Your task to perform on an android device: Check the news Image 0: 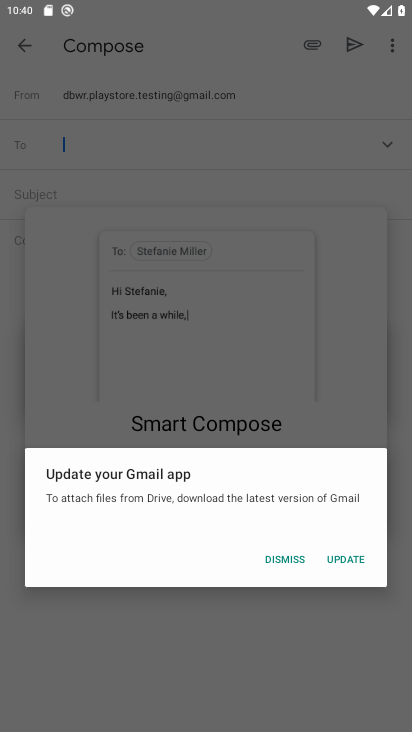
Step 0: press home button
Your task to perform on an android device: Check the news Image 1: 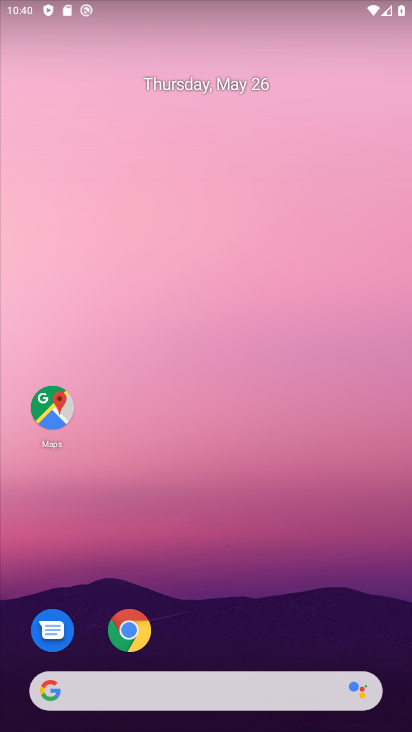
Step 1: drag from (223, 606) to (252, 135)
Your task to perform on an android device: Check the news Image 2: 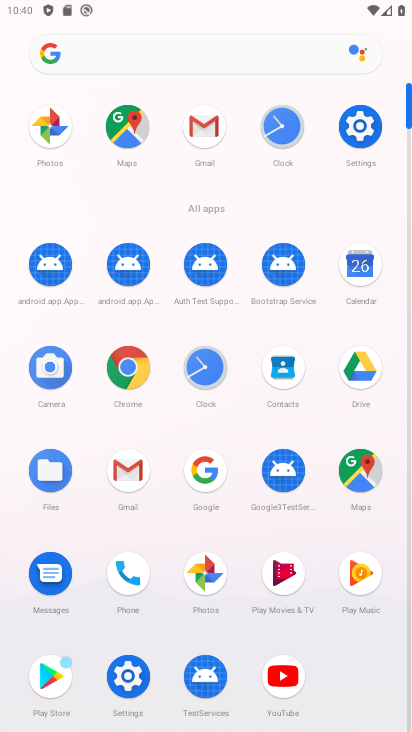
Step 2: click (202, 468)
Your task to perform on an android device: Check the news Image 3: 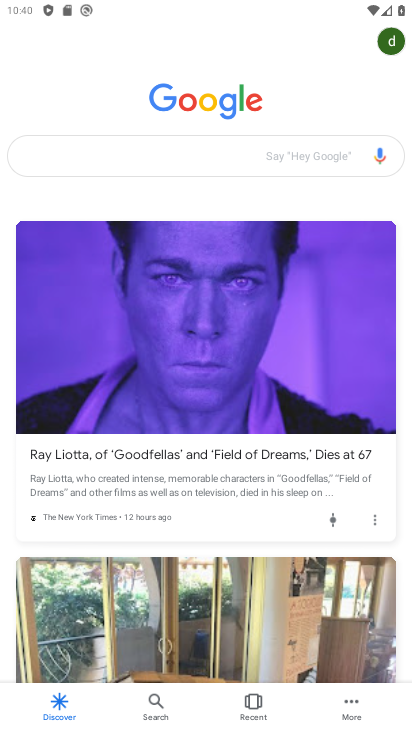
Step 3: click (182, 150)
Your task to perform on an android device: Check the news Image 4: 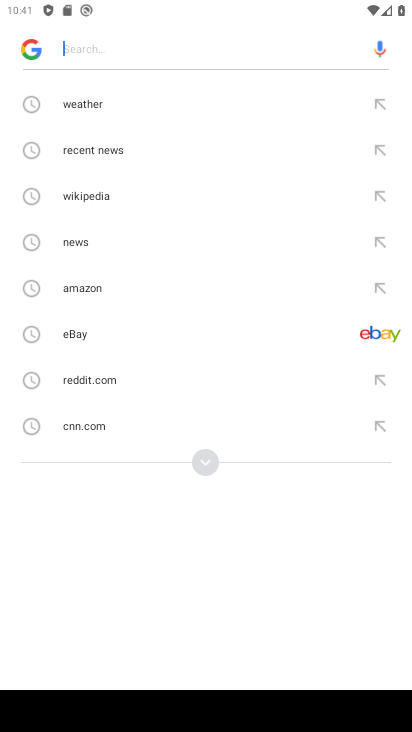
Step 4: click (76, 234)
Your task to perform on an android device: Check the news Image 5: 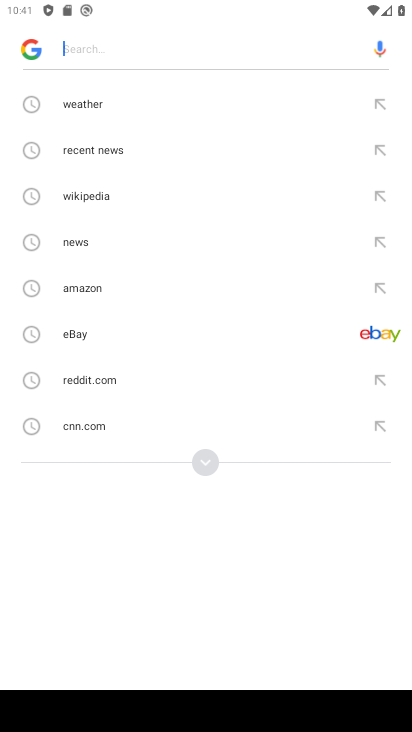
Step 5: click (76, 234)
Your task to perform on an android device: Check the news Image 6: 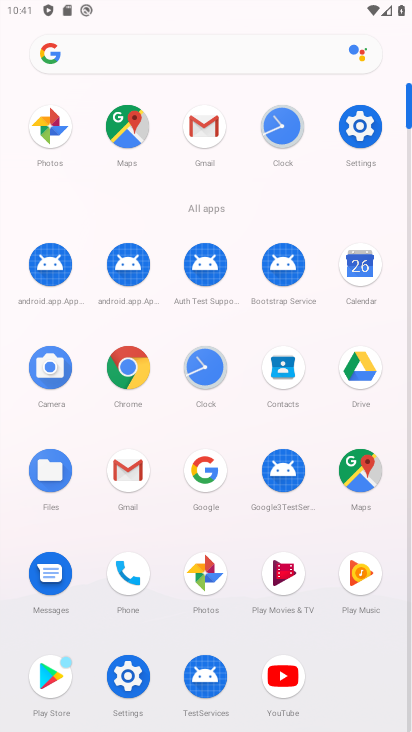
Step 6: task complete